Your task to perform on an android device: search for starred emails in the gmail app Image 0: 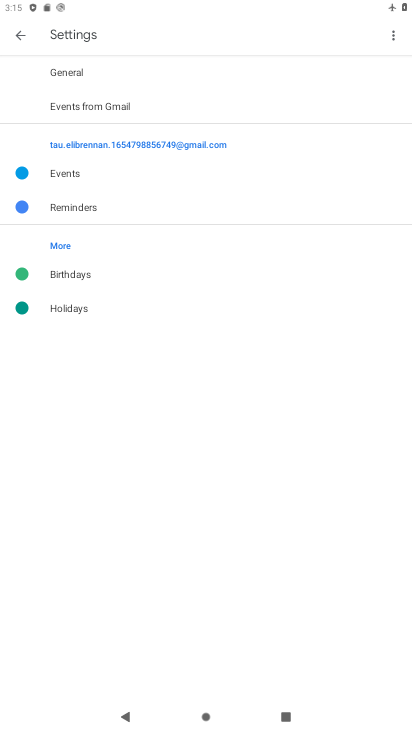
Step 0: press home button
Your task to perform on an android device: search for starred emails in the gmail app Image 1: 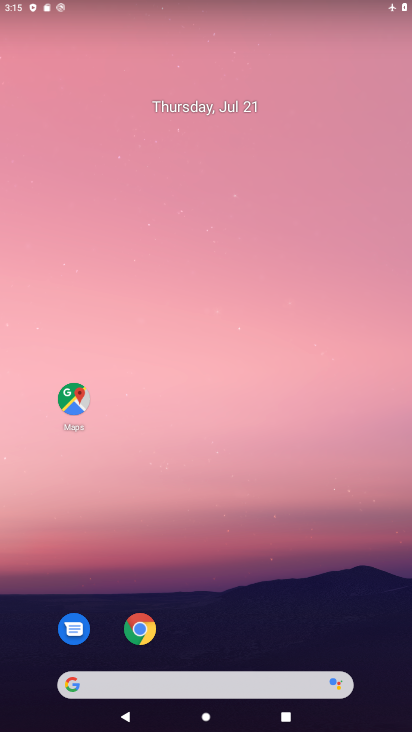
Step 1: drag from (333, 588) to (321, 175)
Your task to perform on an android device: search for starred emails in the gmail app Image 2: 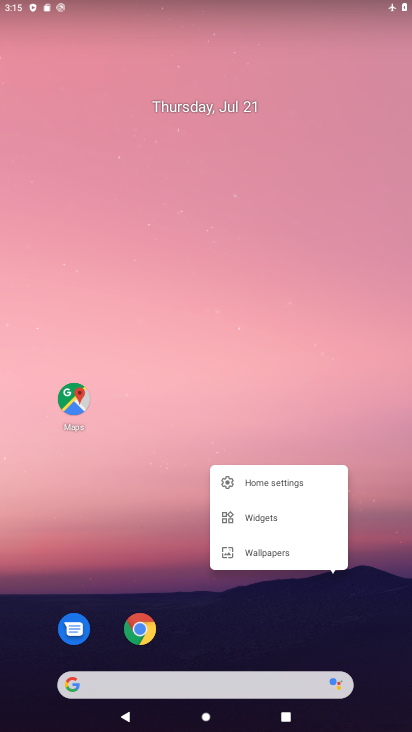
Step 2: click (333, 386)
Your task to perform on an android device: search for starred emails in the gmail app Image 3: 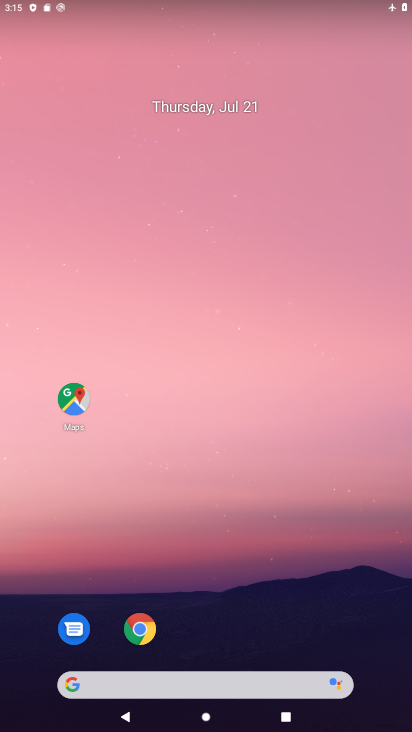
Step 3: drag from (259, 459) to (281, 2)
Your task to perform on an android device: search for starred emails in the gmail app Image 4: 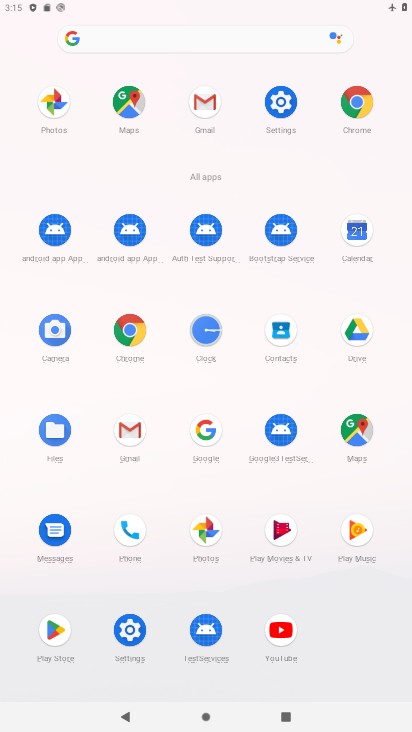
Step 4: click (127, 426)
Your task to perform on an android device: search for starred emails in the gmail app Image 5: 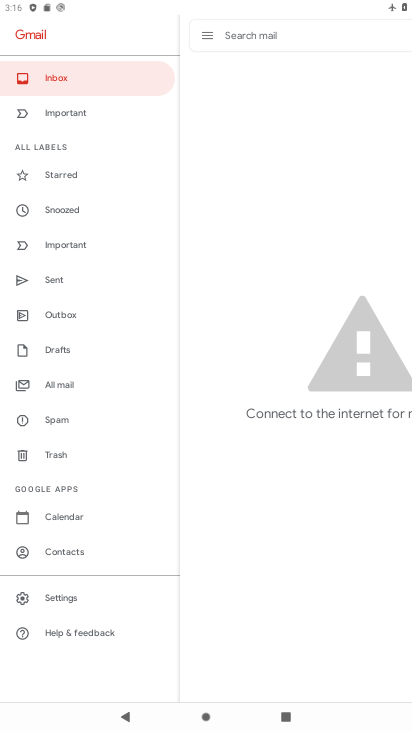
Step 5: click (72, 170)
Your task to perform on an android device: search for starred emails in the gmail app Image 6: 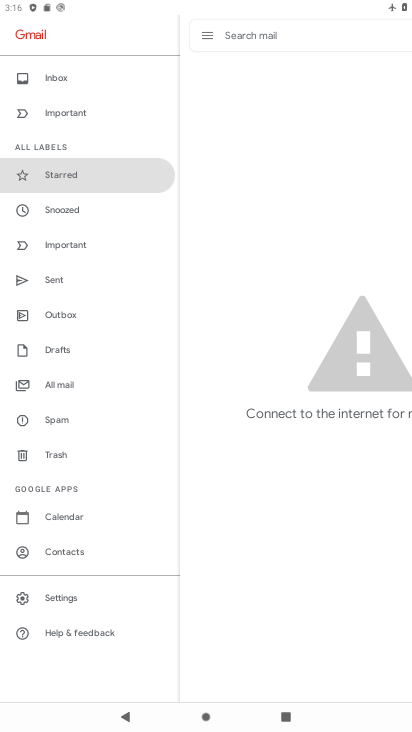
Step 6: task complete